Your task to perform on an android device: open a bookmark in the chrome app Image 0: 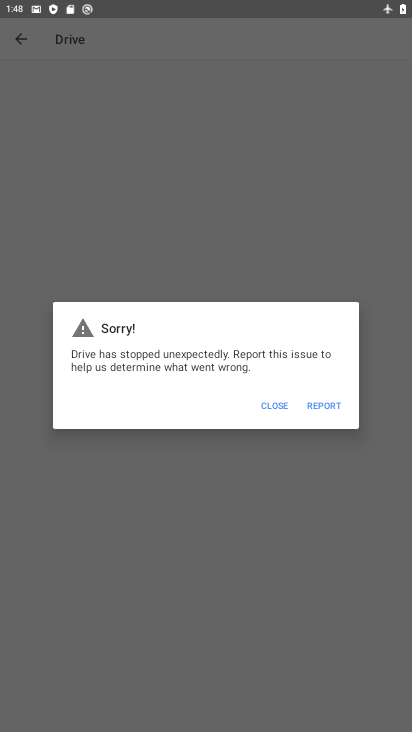
Step 0: press home button
Your task to perform on an android device: open a bookmark in the chrome app Image 1: 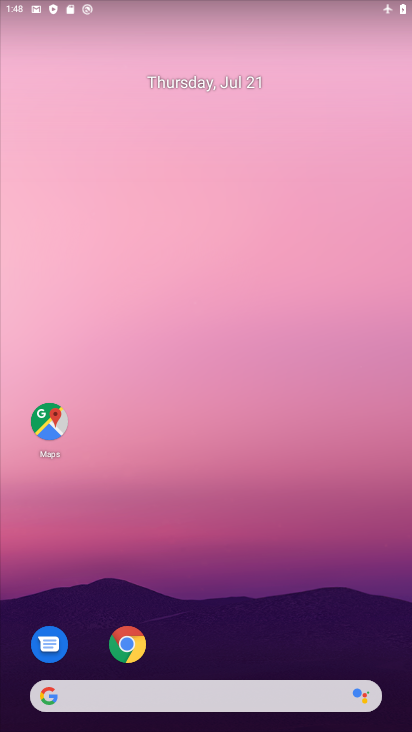
Step 1: click (125, 650)
Your task to perform on an android device: open a bookmark in the chrome app Image 2: 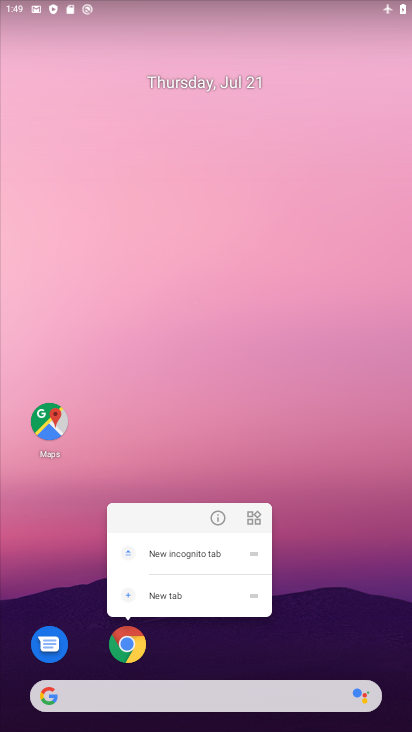
Step 2: click (125, 650)
Your task to perform on an android device: open a bookmark in the chrome app Image 3: 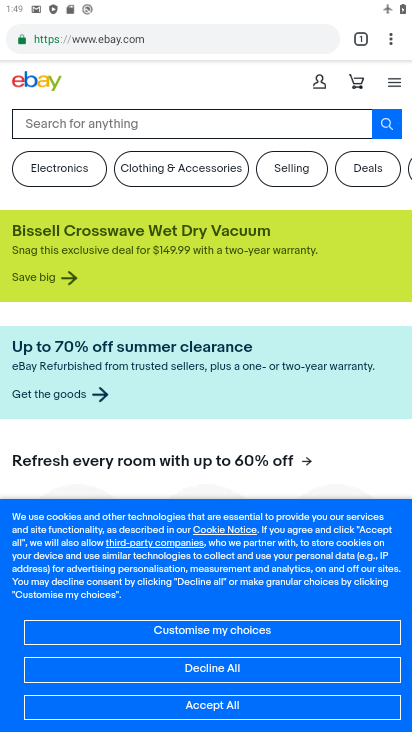
Step 3: click (392, 41)
Your task to perform on an android device: open a bookmark in the chrome app Image 4: 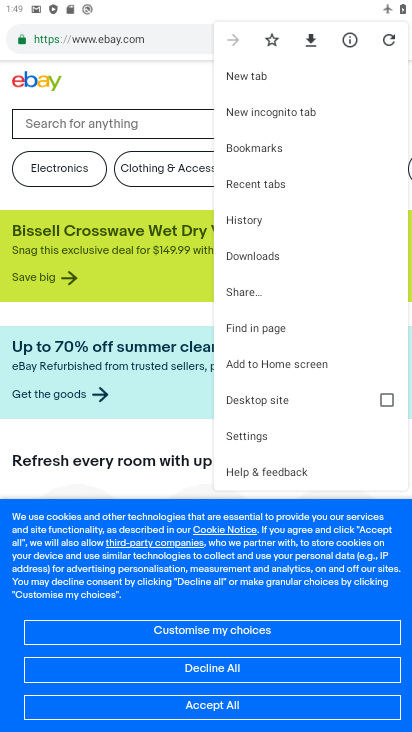
Step 4: click (327, 152)
Your task to perform on an android device: open a bookmark in the chrome app Image 5: 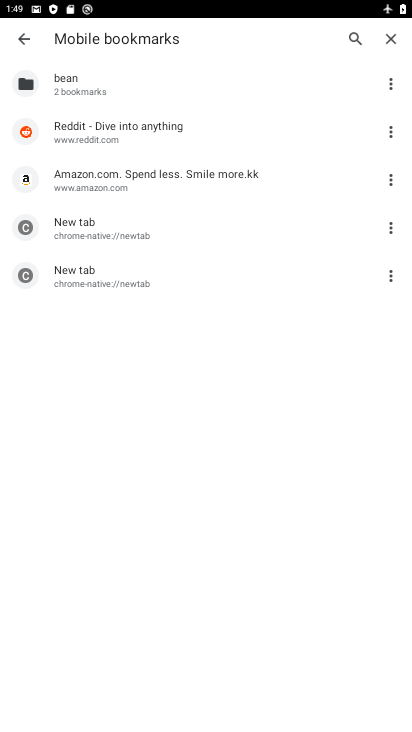
Step 5: click (220, 132)
Your task to perform on an android device: open a bookmark in the chrome app Image 6: 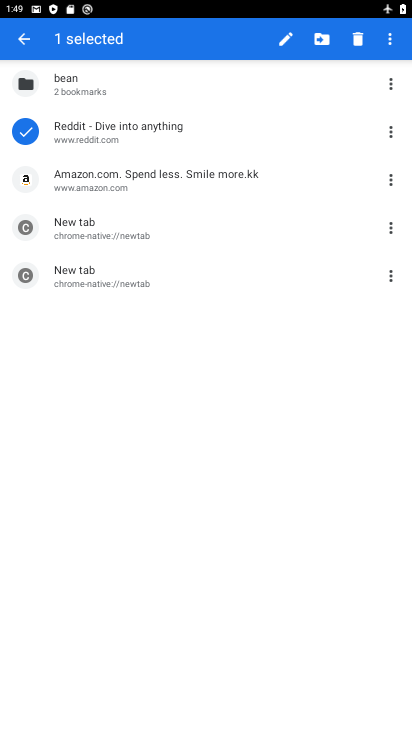
Step 6: click (317, 44)
Your task to perform on an android device: open a bookmark in the chrome app Image 7: 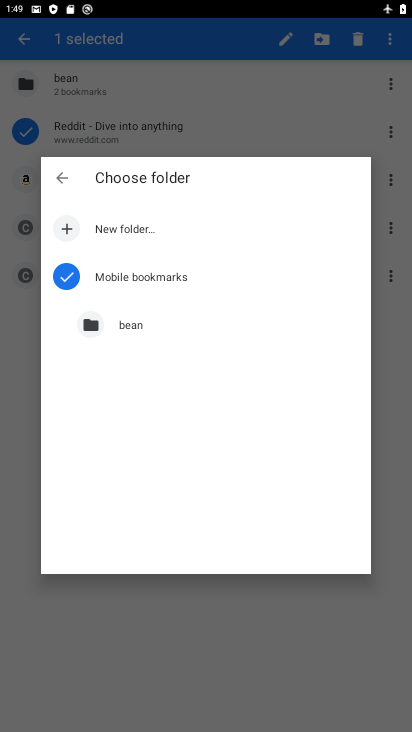
Step 7: click (182, 320)
Your task to perform on an android device: open a bookmark in the chrome app Image 8: 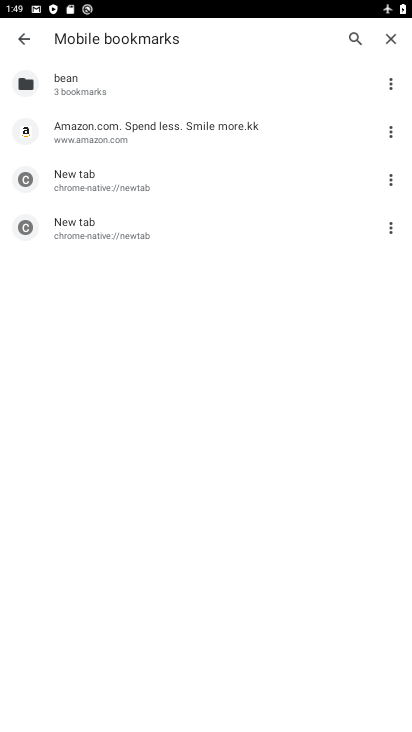
Step 8: task complete